Your task to perform on an android device: toggle sleep mode Image 0: 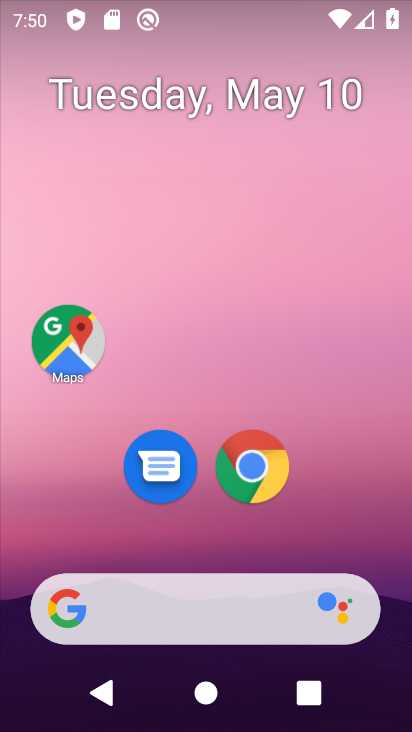
Step 0: drag from (249, 540) to (307, 25)
Your task to perform on an android device: toggle sleep mode Image 1: 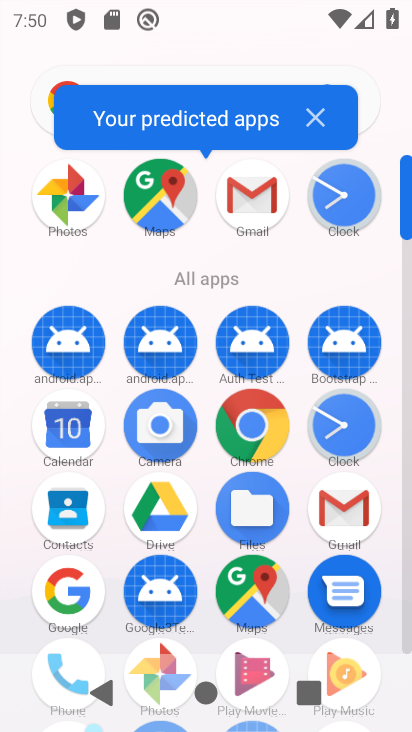
Step 1: drag from (218, 621) to (266, 132)
Your task to perform on an android device: toggle sleep mode Image 2: 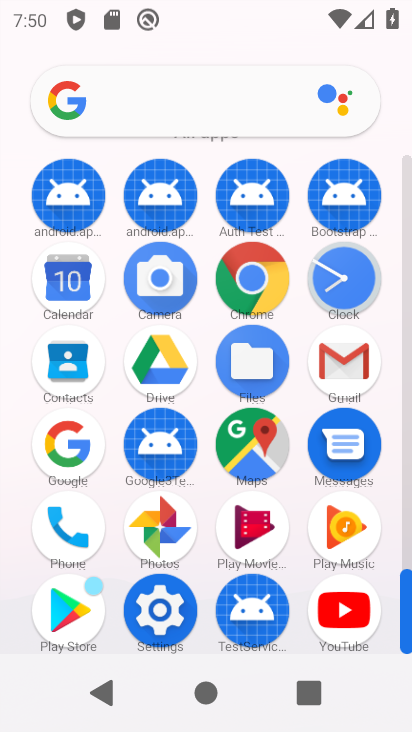
Step 2: click (161, 596)
Your task to perform on an android device: toggle sleep mode Image 3: 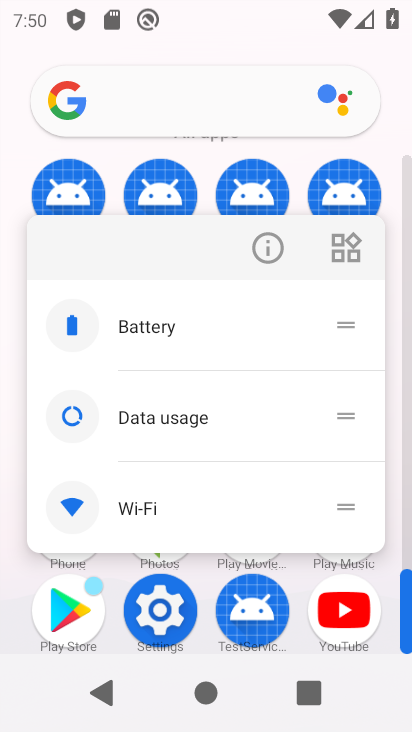
Step 3: click (140, 599)
Your task to perform on an android device: toggle sleep mode Image 4: 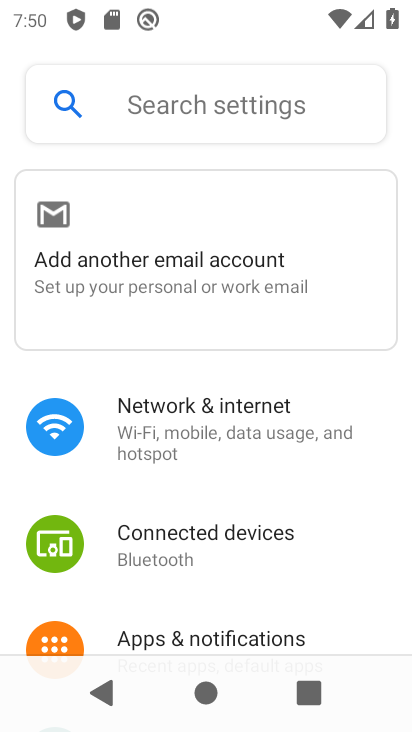
Step 4: drag from (142, 566) to (236, 163)
Your task to perform on an android device: toggle sleep mode Image 5: 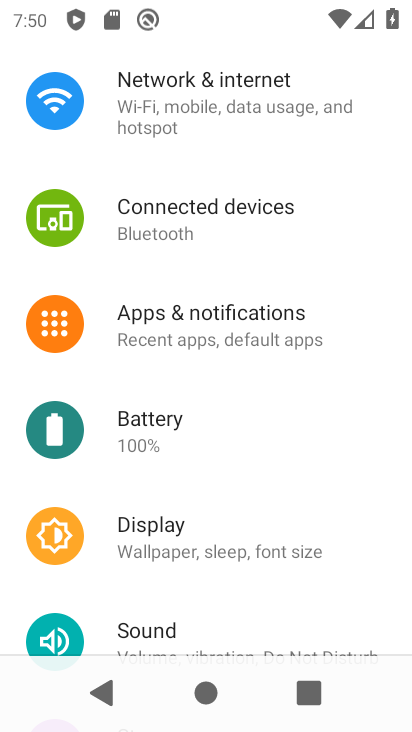
Step 5: click (231, 539)
Your task to perform on an android device: toggle sleep mode Image 6: 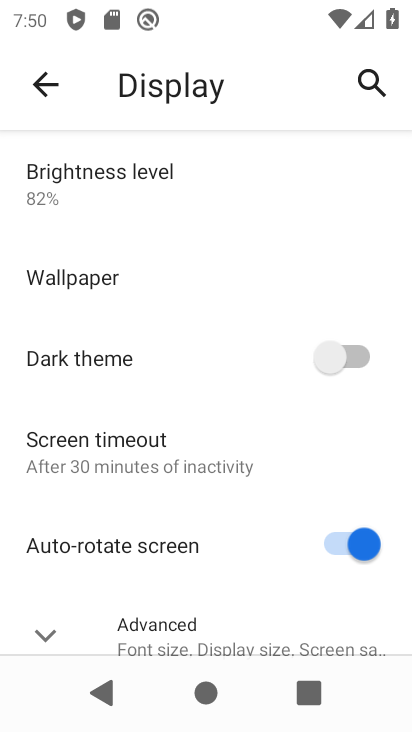
Step 6: click (219, 624)
Your task to perform on an android device: toggle sleep mode Image 7: 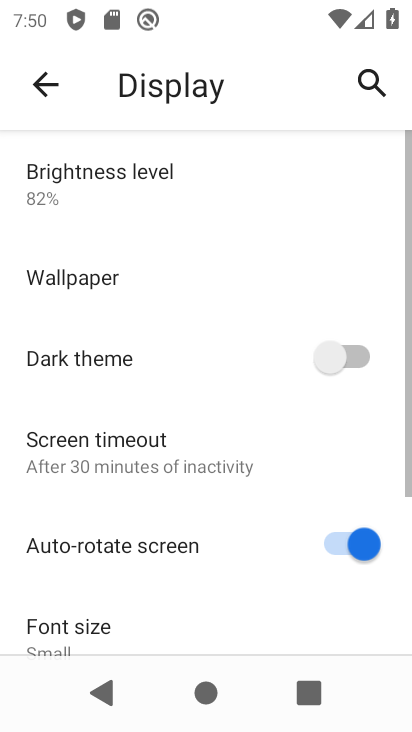
Step 7: drag from (213, 604) to (324, 145)
Your task to perform on an android device: toggle sleep mode Image 8: 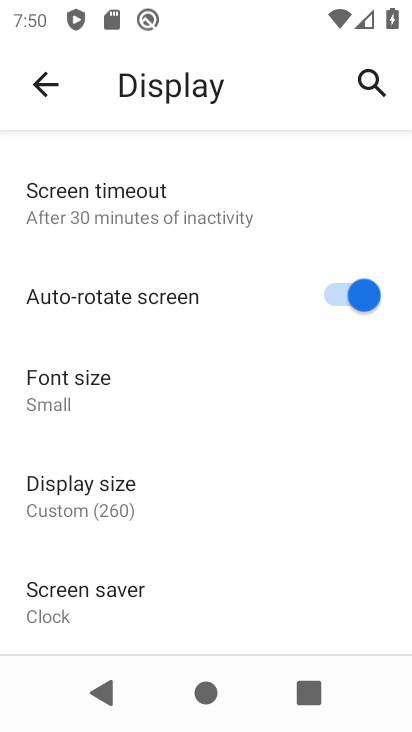
Step 8: click (58, 94)
Your task to perform on an android device: toggle sleep mode Image 9: 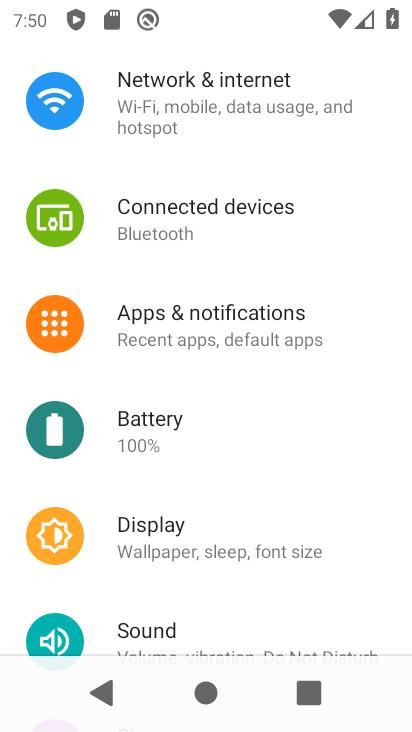
Step 9: task complete